Your task to perform on an android device: move a message to another label in the gmail app Image 0: 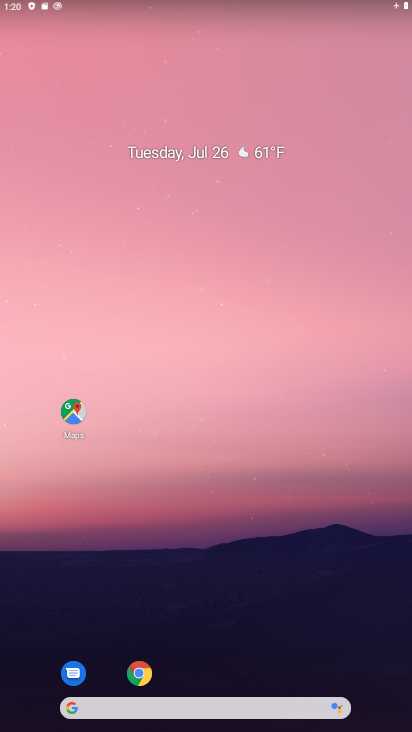
Step 0: drag from (208, 688) to (234, 187)
Your task to perform on an android device: move a message to another label in the gmail app Image 1: 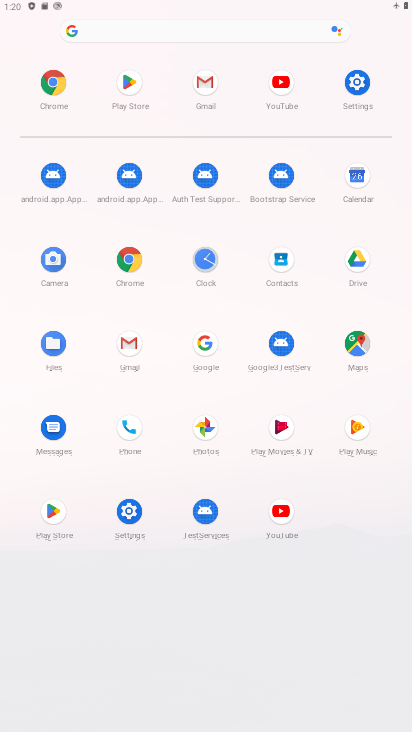
Step 1: click (126, 346)
Your task to perform on an android device: move a message to another label in the gmail app Image 2: 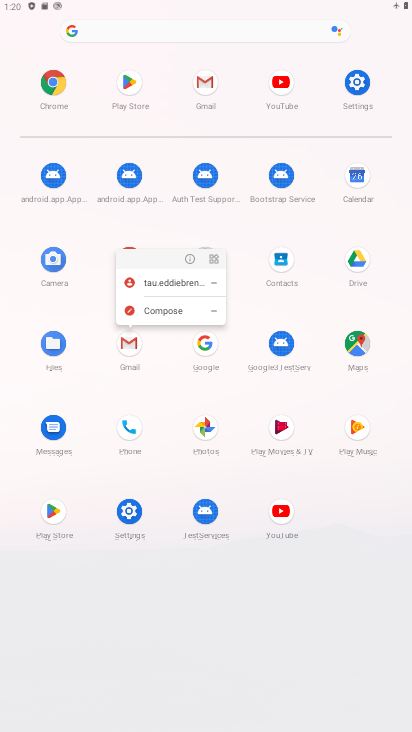
Step 2: click (189, 259)
Your task to perform on an android device: move a message to another label in the gmail app Image 3: 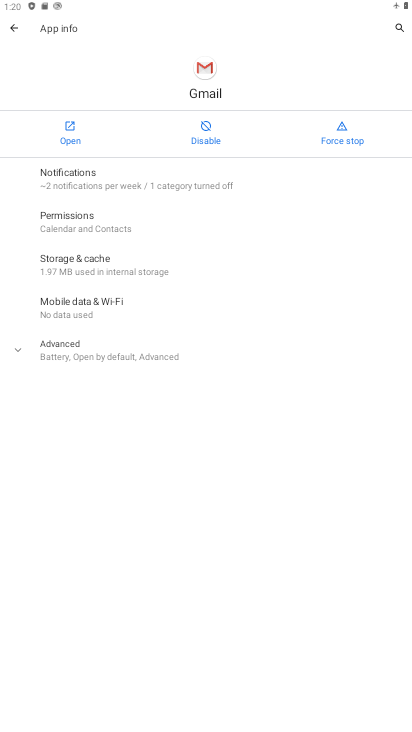
Step 3: click (62, 124)
Your task to perform on an android device: move a message to another label in the gmail app Image 4: 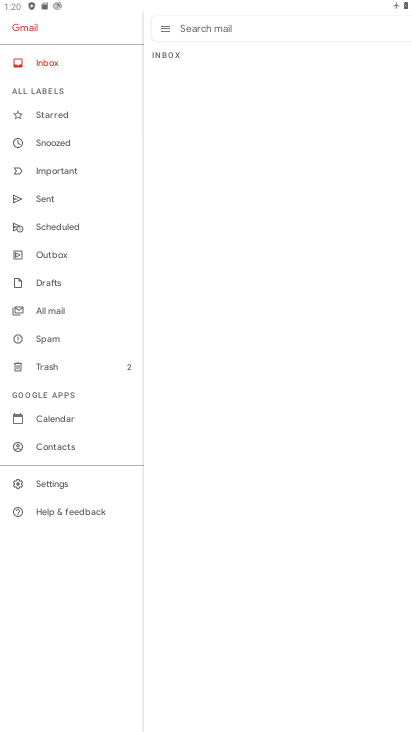
Step 4: click (250, 182)
Your task to perform on an android device: move a message to another label in the gmail app Image 5: 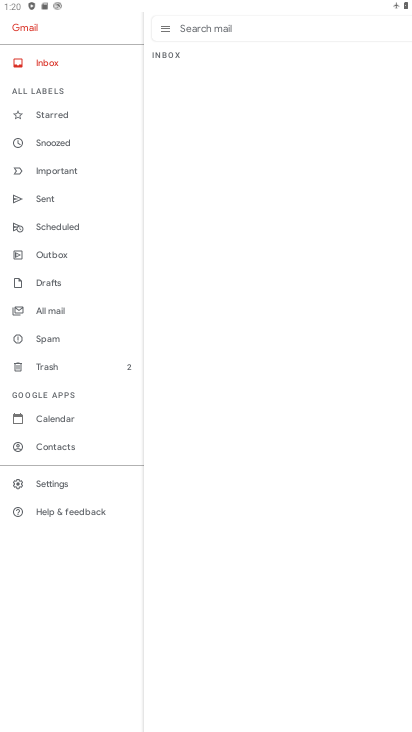
Step 5: task complete